Your task to perform on an android device: Open Amazon Image 0: 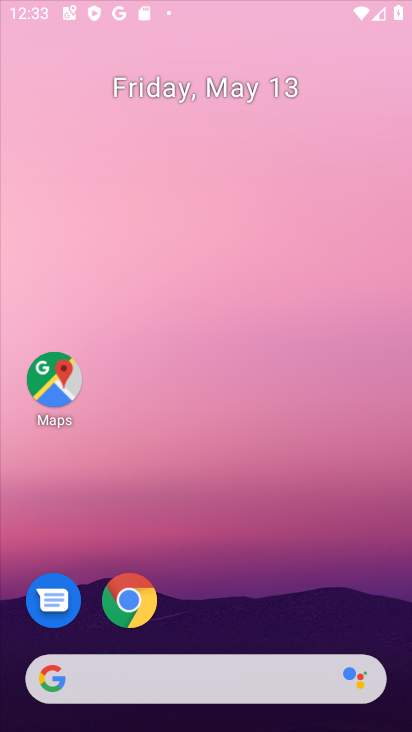
Step 0: click (344, 179)
Your task to perform on an android device: Open Amazon Image 1: 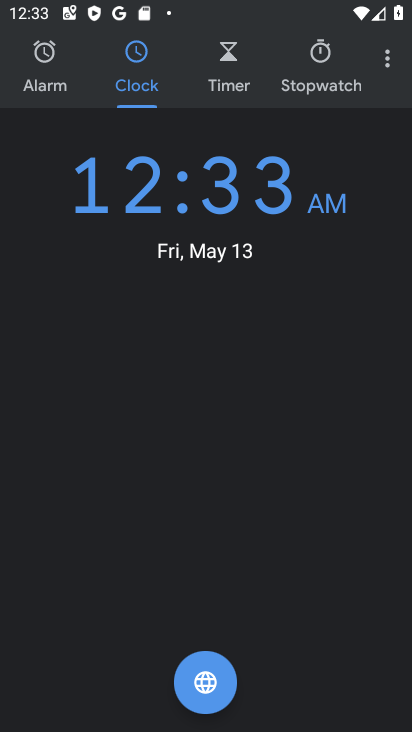
Step 1: press home button
Your task to perform on an android device: Open Amazon Image 2: 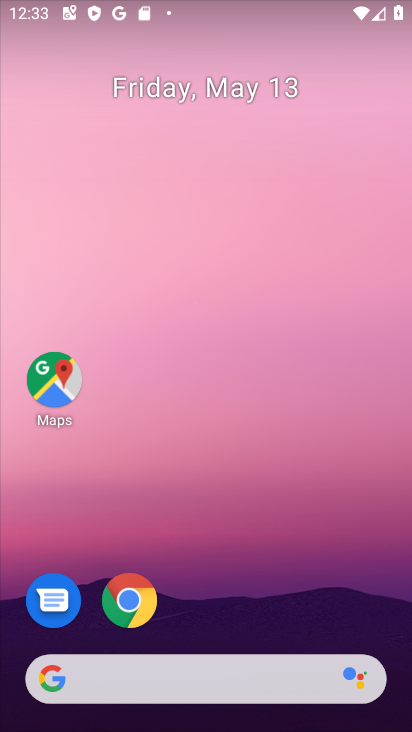
Step 2: drag from (246, 629) to (214, 123)
Your task to perform on an android device: Open Amazon Image 3: 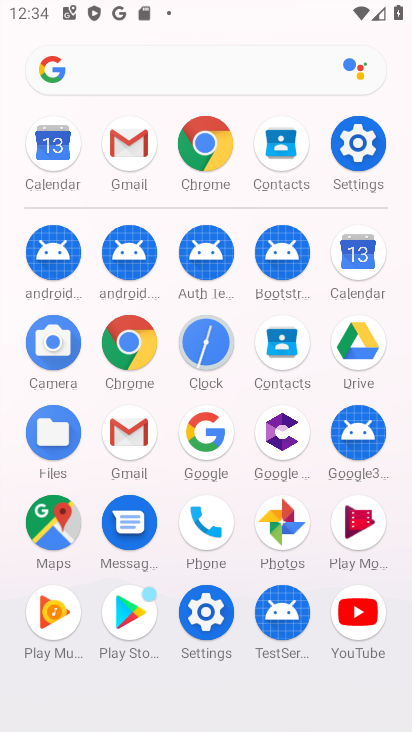
Step 3: click (279, 42)
Your task to perform on an android device: Open Amazon Image 4: 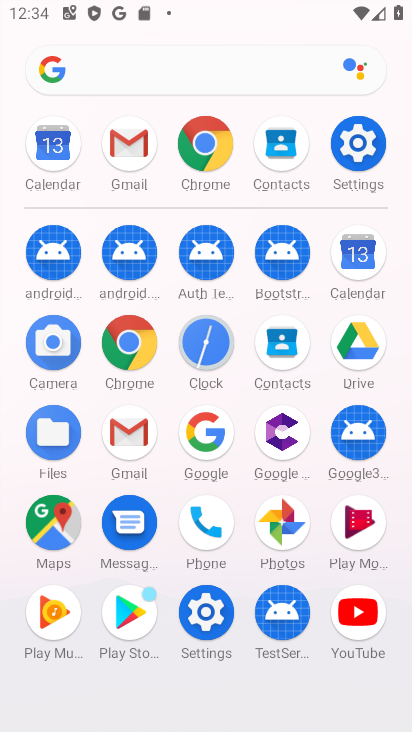
Step 4: click (253, 49)
Your task to perform on an android device: Open Amazon Image 5: 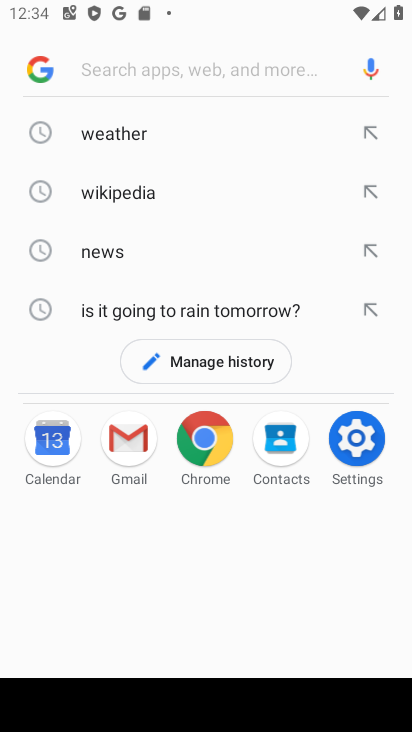
Step 5: type "amazon"
Your task to perform on an android device: Open Amazon Image 6: 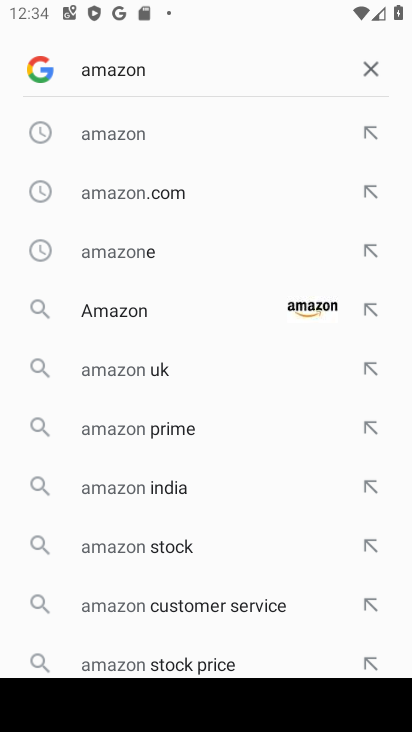
Step 6: click (185, 181)
Your task to perform on an android device: Open Amazon Image 7: 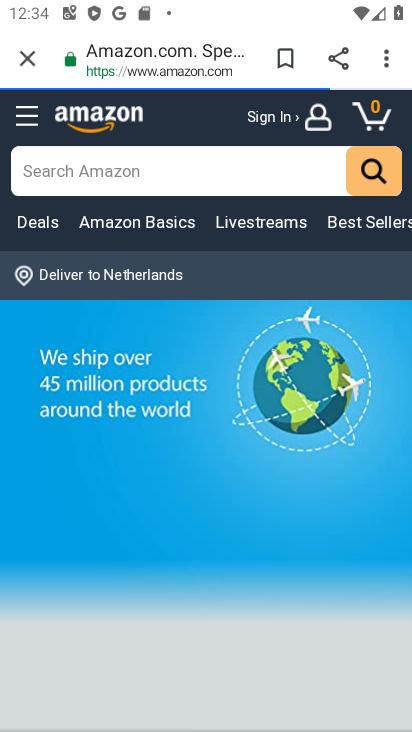
Step 7: task complete